Your task to perform on an android device: empty trash in google photos Image 0: 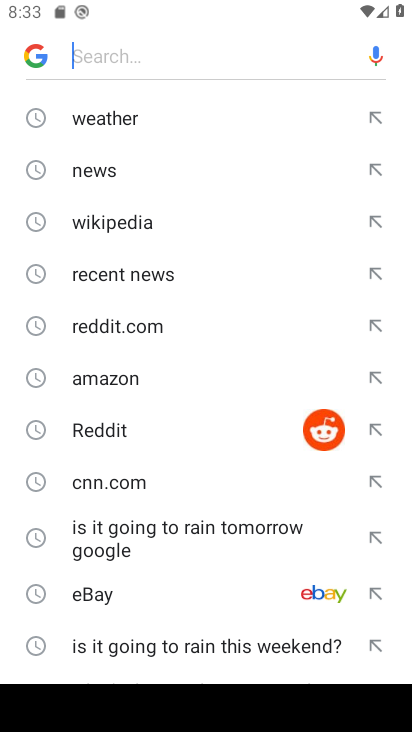
Step 0: press home button
Your task to perform on an android device: empty trash in google photos Image 1: 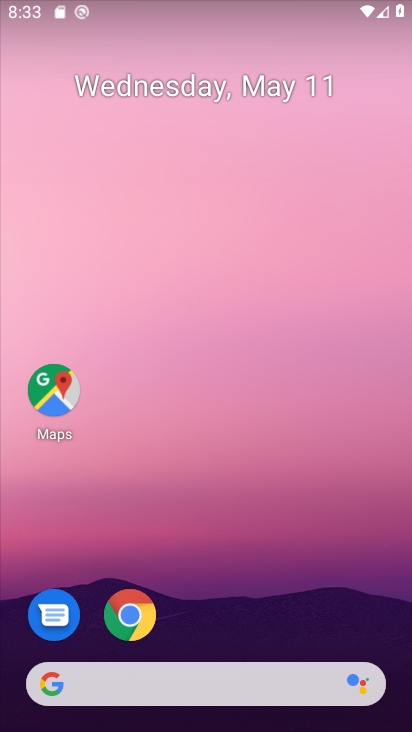
Step 1: drag from (261, 626) to (188, 118)
Your task to perform on an android device: empty trash in google photos Image 2: 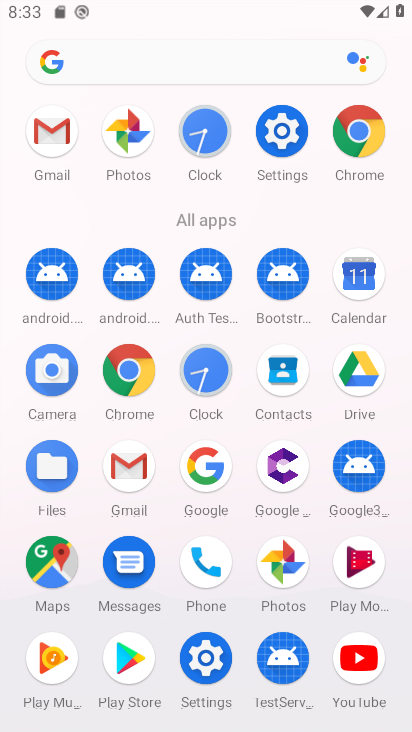
Step 2: click (129, 136)
Your task to perform on an android device: empty trash in google photos Image 3: 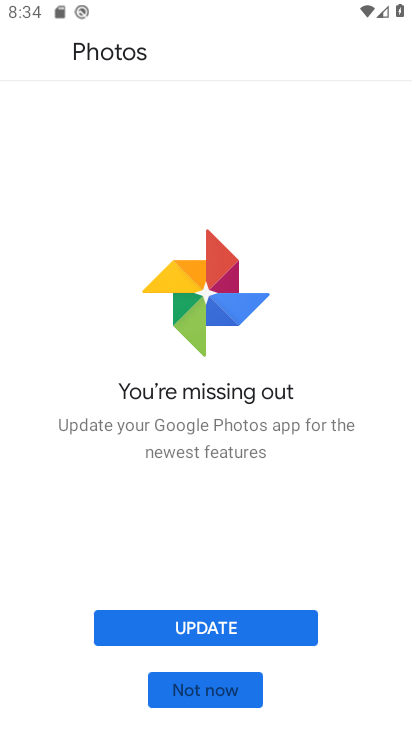
Step 3: click (234, 621)
Your task to perform on an android device: empty trash in google photos Image 4: 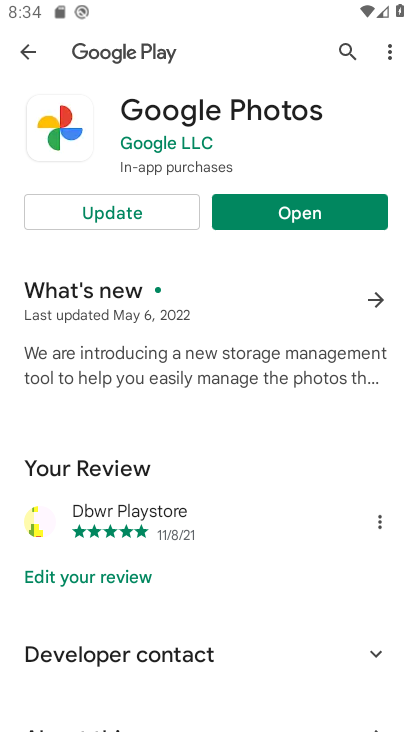
Step 4: click (93, 203)
Your task to perform on an android device: empty trash in google photos Image 5: 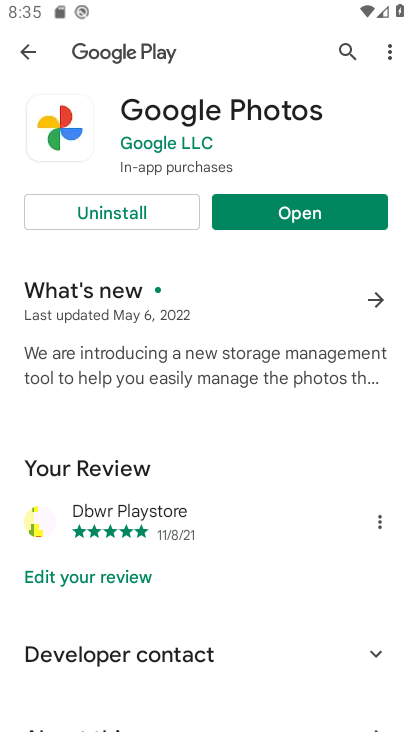
Step 5: click (298, 210)
Your task to perform on an android device: empty trash in google photos Image 6: 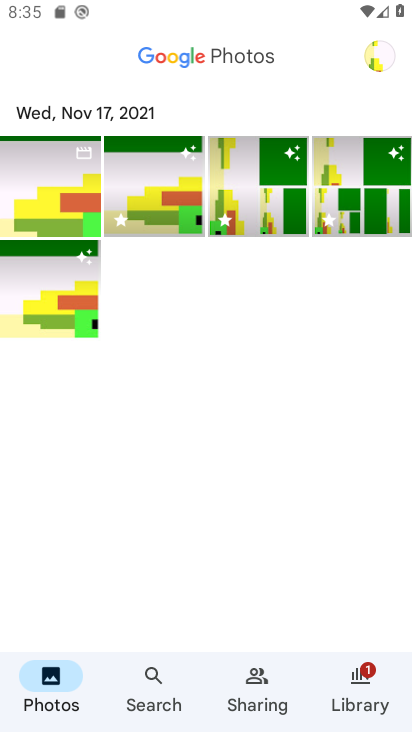
Step 6: click (385, 51)
Your task to perform on an android device: empty trash in google photos Image 7: 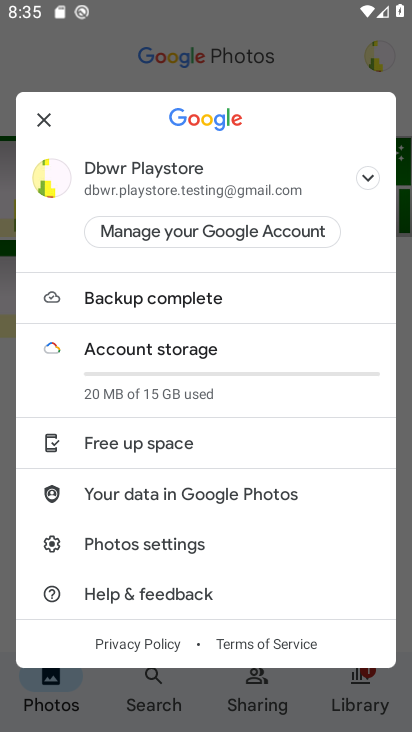
Step 7: drag from (197, 574) to (187, 243)
Your task to perform on an android device: empty trash in google photos Image 8: 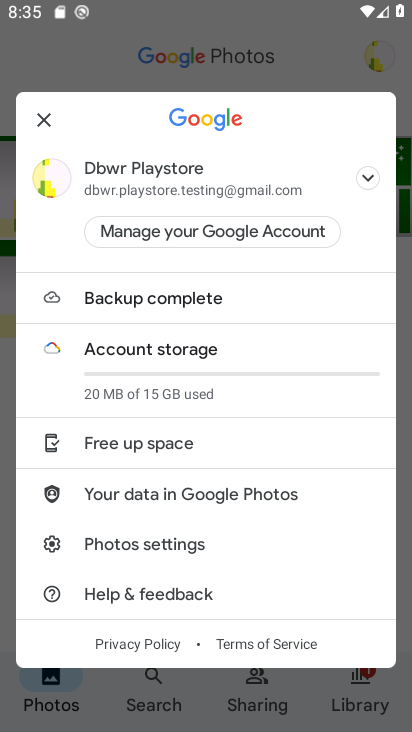
Step 8: click (137, 540)
Your task to perform on an android device: empty trash in google photos Image 9: 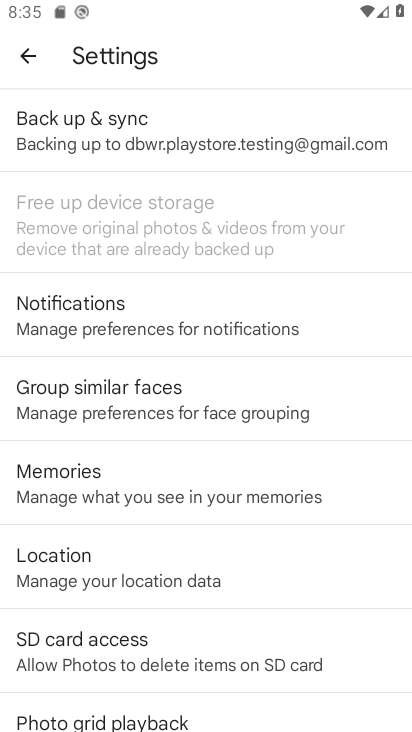
Step 9: task complete